Your task to perform on an android device: uninstall "Calculator" Image 0: 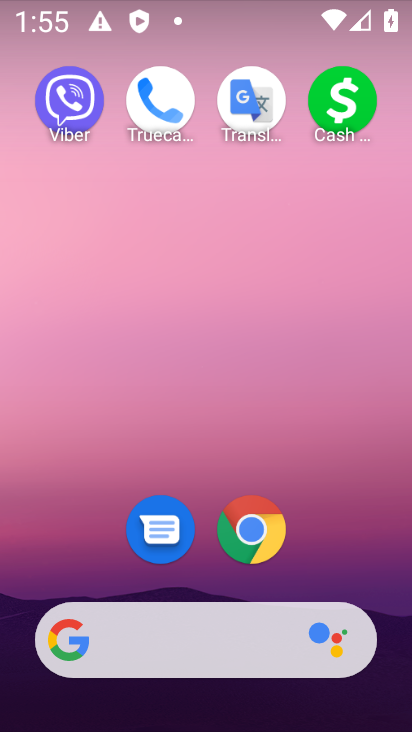
Step 0: drag from (222, 639) to (140, 6)
Your task to perform on an android device: uninstall "Calculator" Image 1: 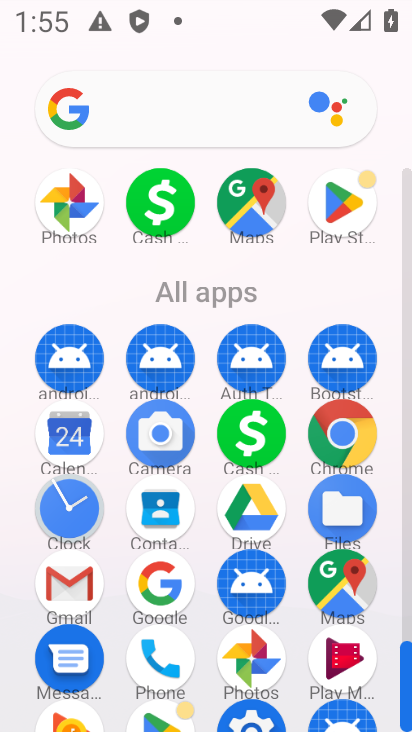
Step 1: click (326, 221)
Your task to perform on an android device: uninstall "Calculator" Image 2: 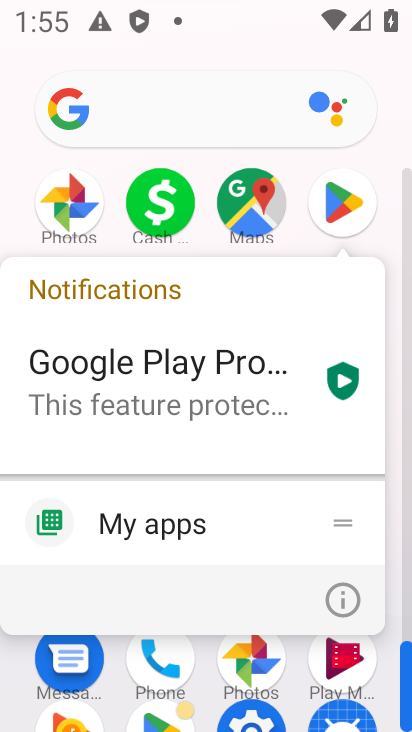
Step 2: click (342, 191)
Your task to perform on an android device: uninstall "Calculator" Image 3: 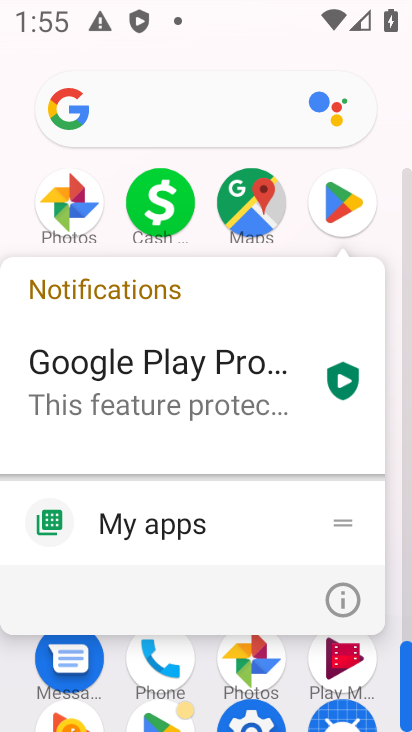
Step 3: click (335, 193)
Your task to perform on an android device: uninstall "Calculator" Image 4: 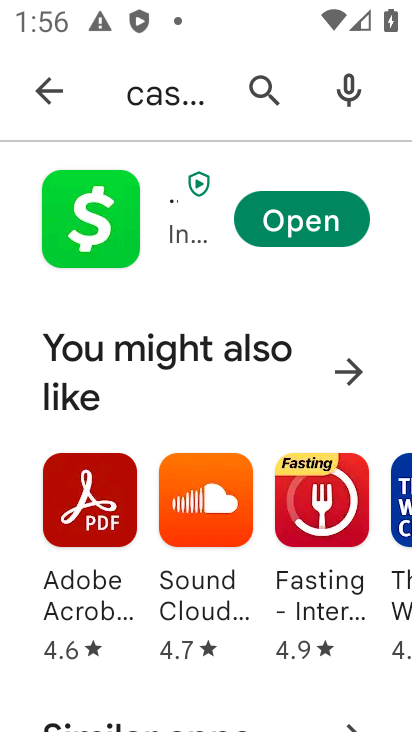
Step 4: click (266, 87)
Your task to perform on an android device: uninstall "Calculator" Image 5: 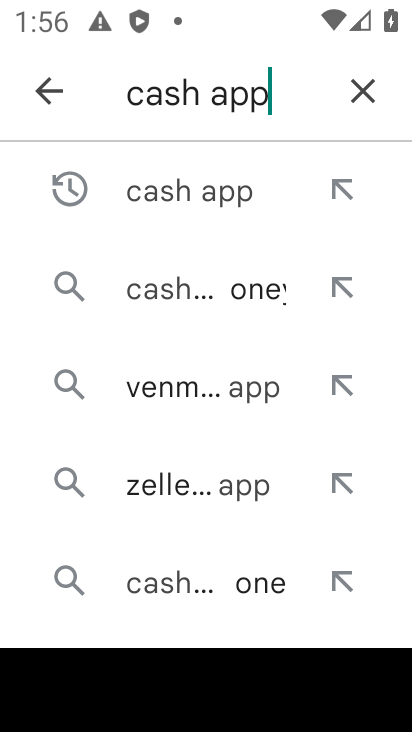
Step 5: click (356, 100)
Your task to perform on an android device: uninstall "Calculator" Image 6: 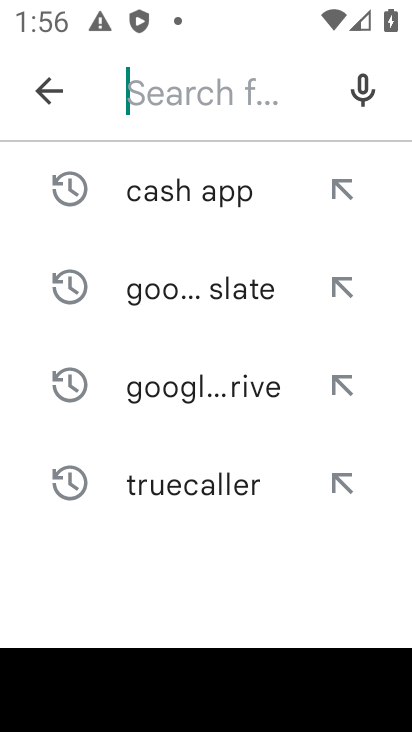
Step 6: type "calculator"
Your task to perform on an android device: uninstall "Calculator" Image 7: 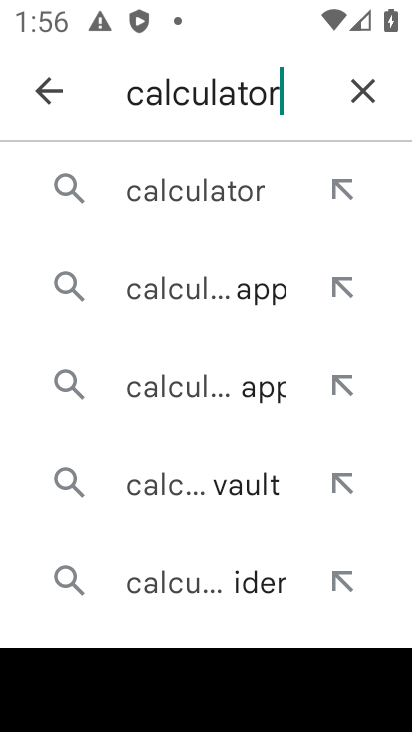
Step 7: click (192, 186)
Your task to perform on an android device: uninstall "Calculator" Image 8: 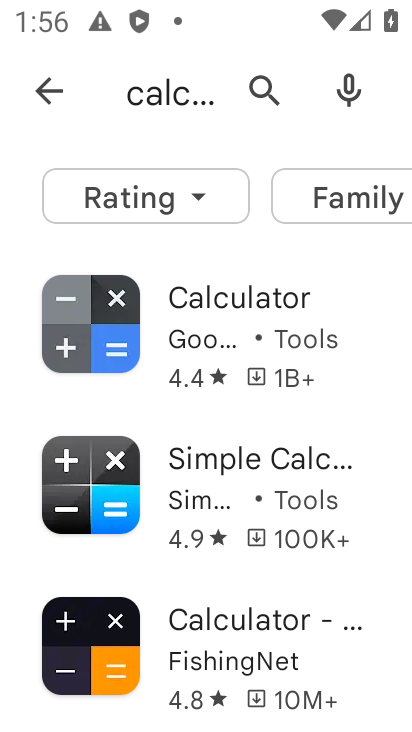
Step 8: click (213, 342)
Your task to perform on an android device: uninstall "Calculator" Image 9: 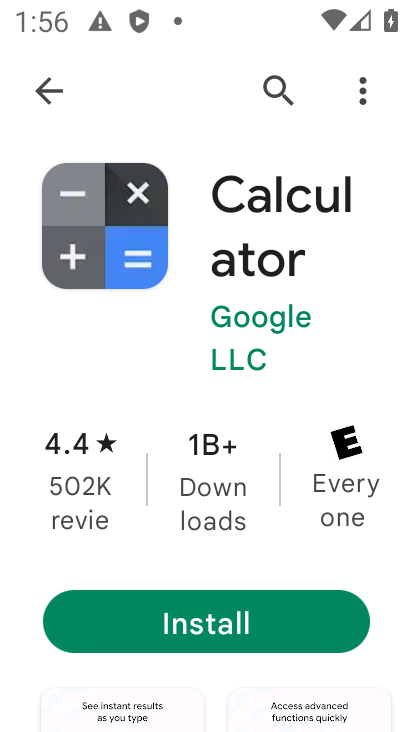
Step 9: task complete